Your task to perform on an android device: Search for pizza restaurants on Maps Image 0: 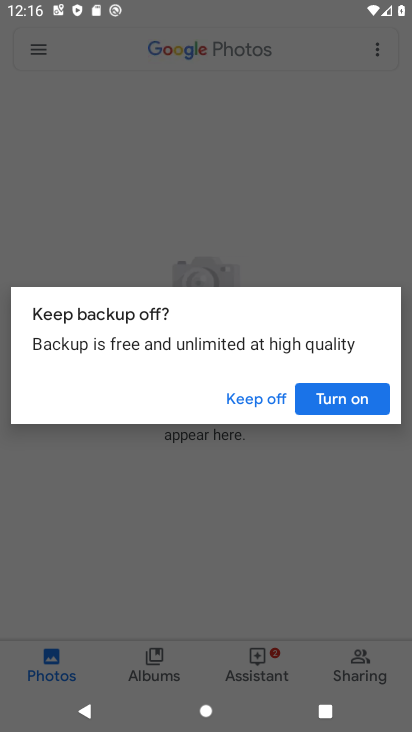
Step 0: press home button
Your task to perform on an android device: Search for pizza restaurants on Maps Image 1: 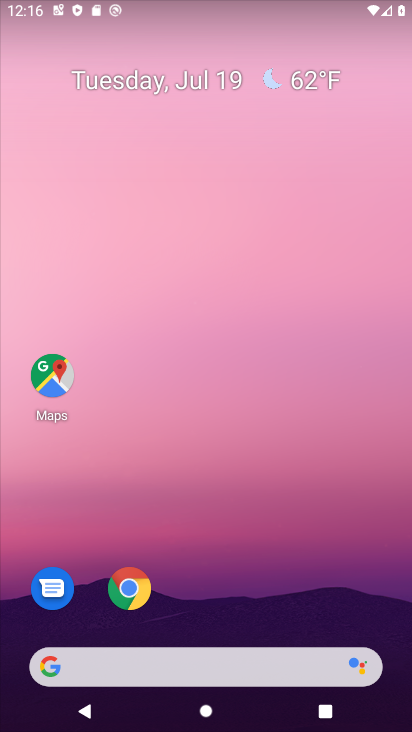
Step 1: click (61, 378)
Your task to perform on an android device: Search for pizza restaurants on Maps Image 2: 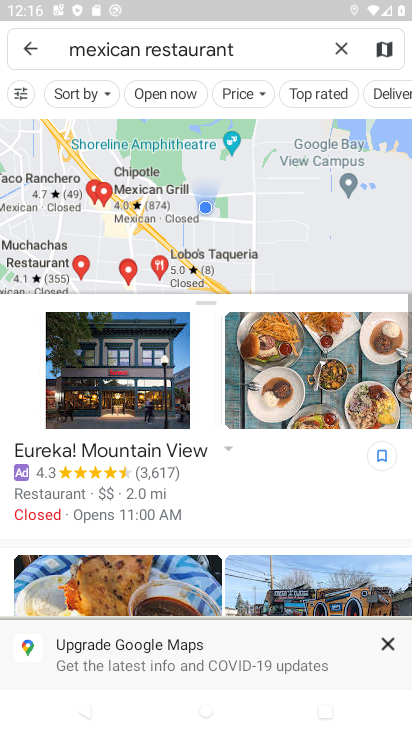
Step 2: click (296, 61)
Your task to perform on an android device: Search for pizza restaurants on Maps Image 3: 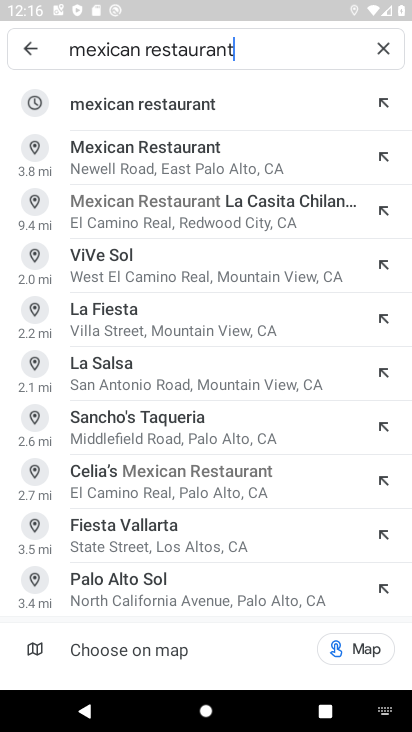
Step 3: click (390, 47)
Your task to perform on an android device: Search for pizza restaurants on Maps Image 4: 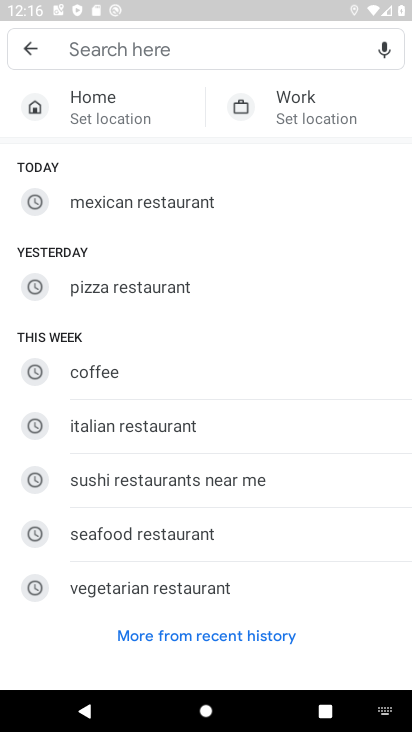
Step 4: type "pizza restaurants"
Your task to perform on an android device: Search for pizza restaurants on Maps Image 5: 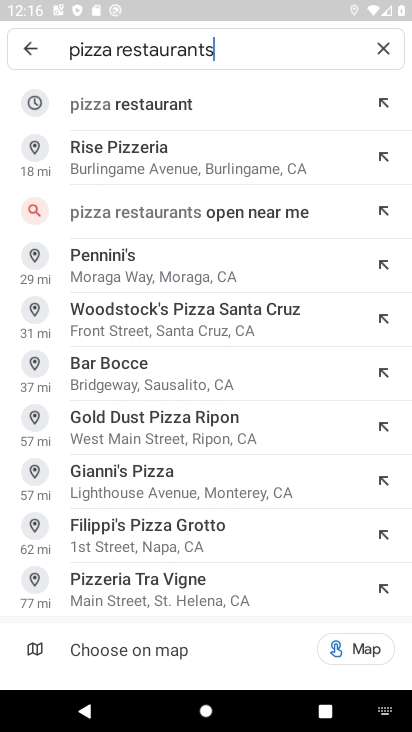
Step 5: click (203, 102)
Your task to perform on an android device: Search for pizza restaurants on Maps Image 6: 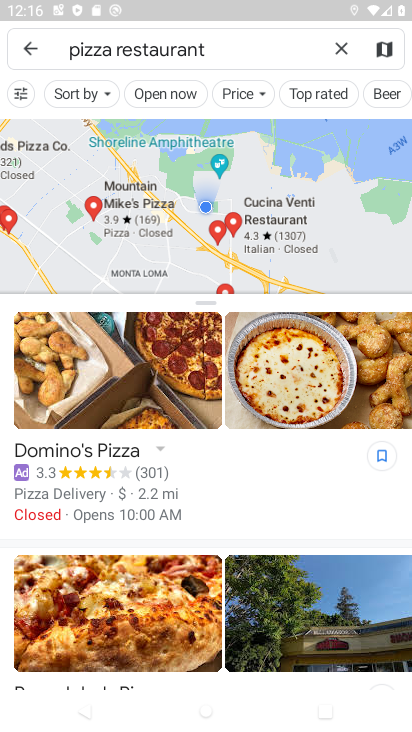
Step 6: task complete